Your task to perform on an android device: install app "Instagram" Image 0: 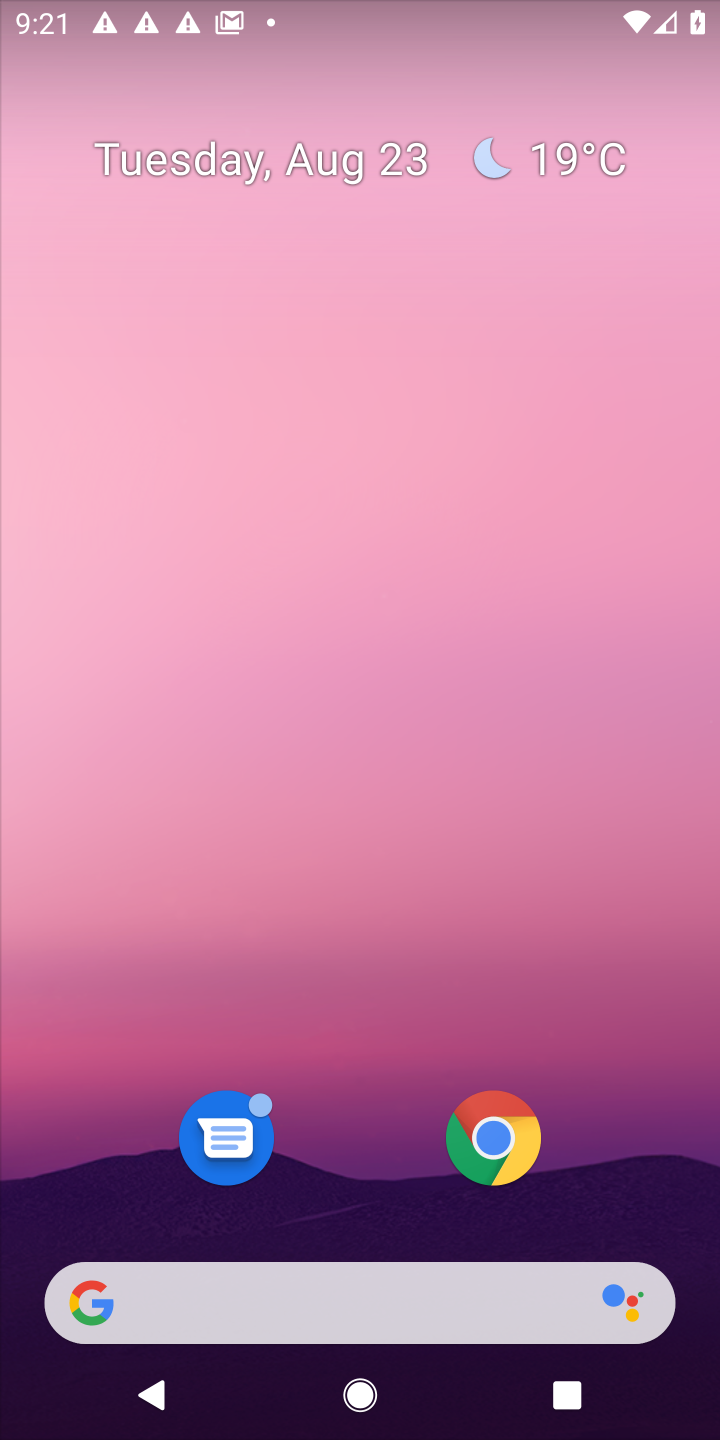
Step 0: drag from (297, 1281) to (401, 219)
Your task to perform on an android device: install app "Instagram" Image 1: 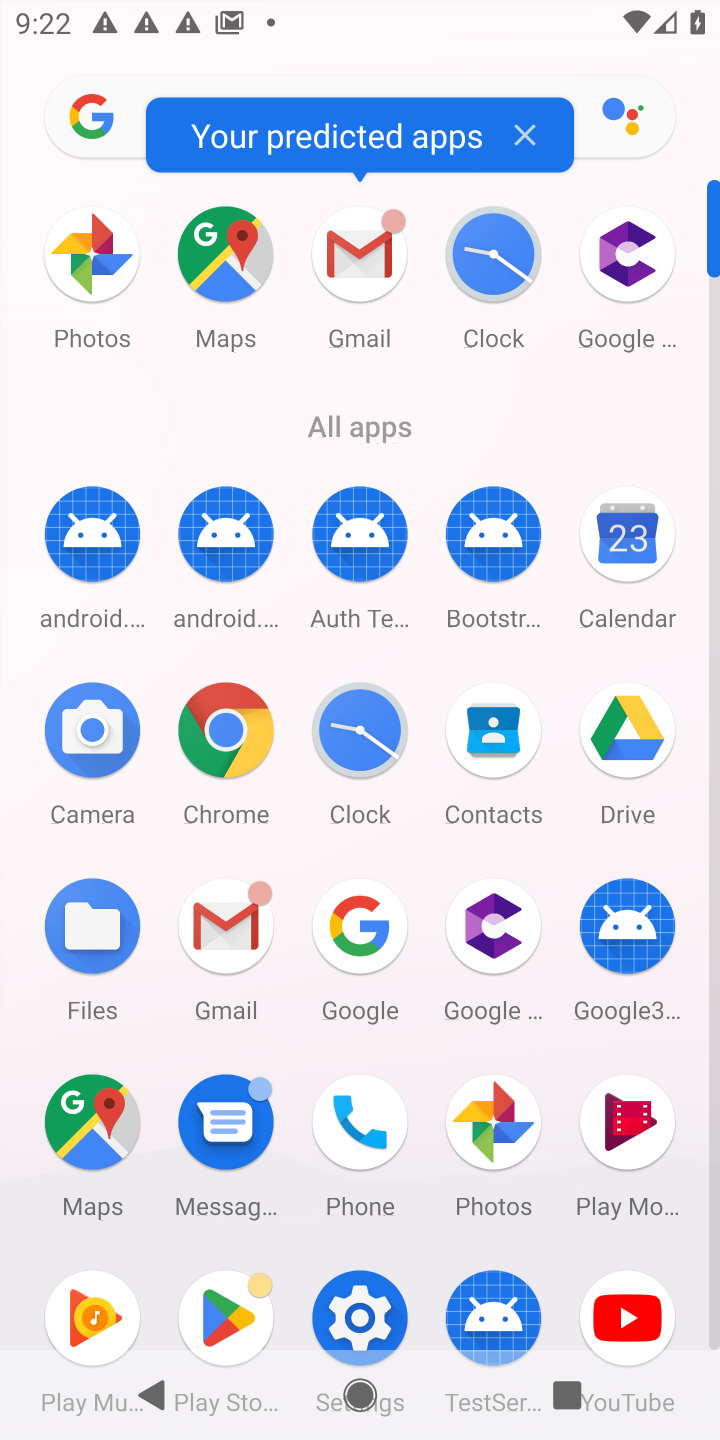
Step 1: click (228, 1308)
Your task to perform on an android device: install app "Instagram" Image 2: 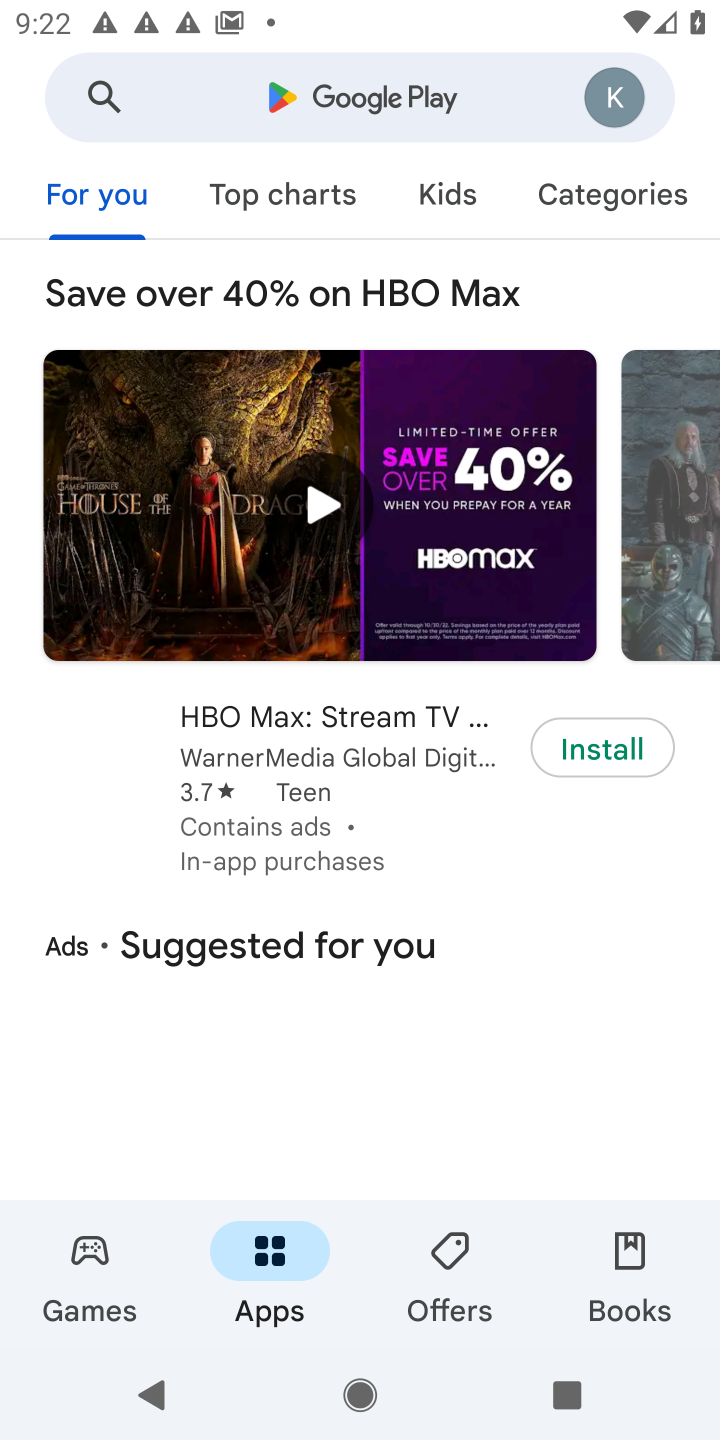
Step 2: click (370, 79)
Your task to perform on an android device: install app "Instagram" Image 3: 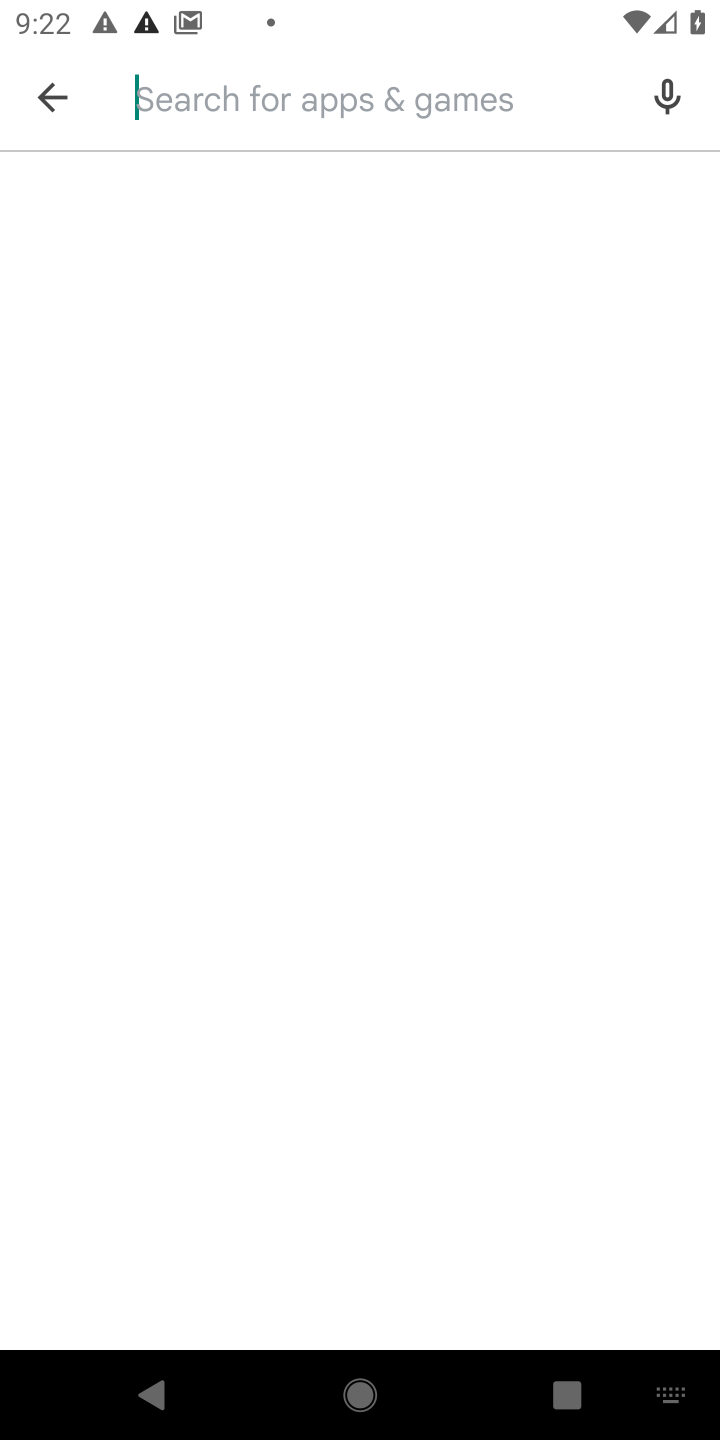
Step 3: type "Instagram"
Your task to perform on an android device: install app "Instagram" Image 4: 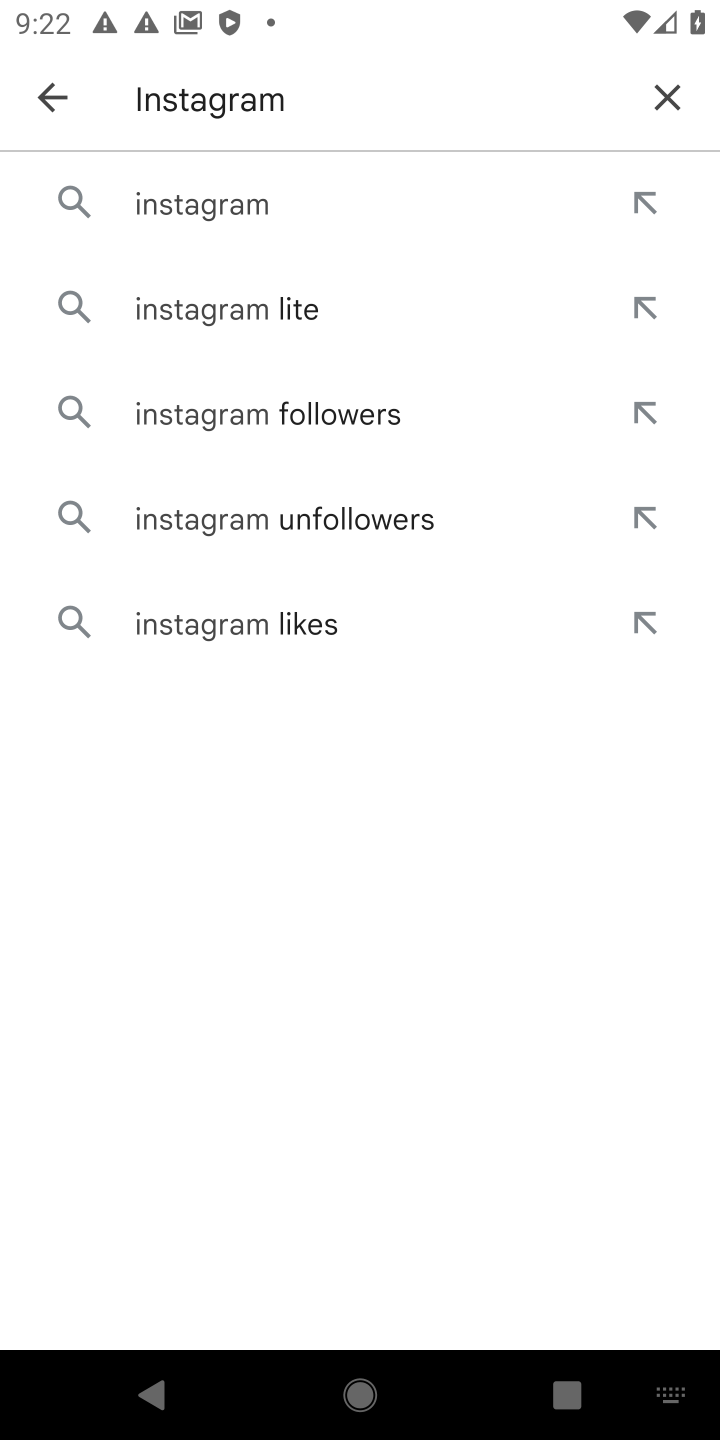
Step 4: click (237, 199)
Your task to perform on an android device: install app "Instagram" Image 5: 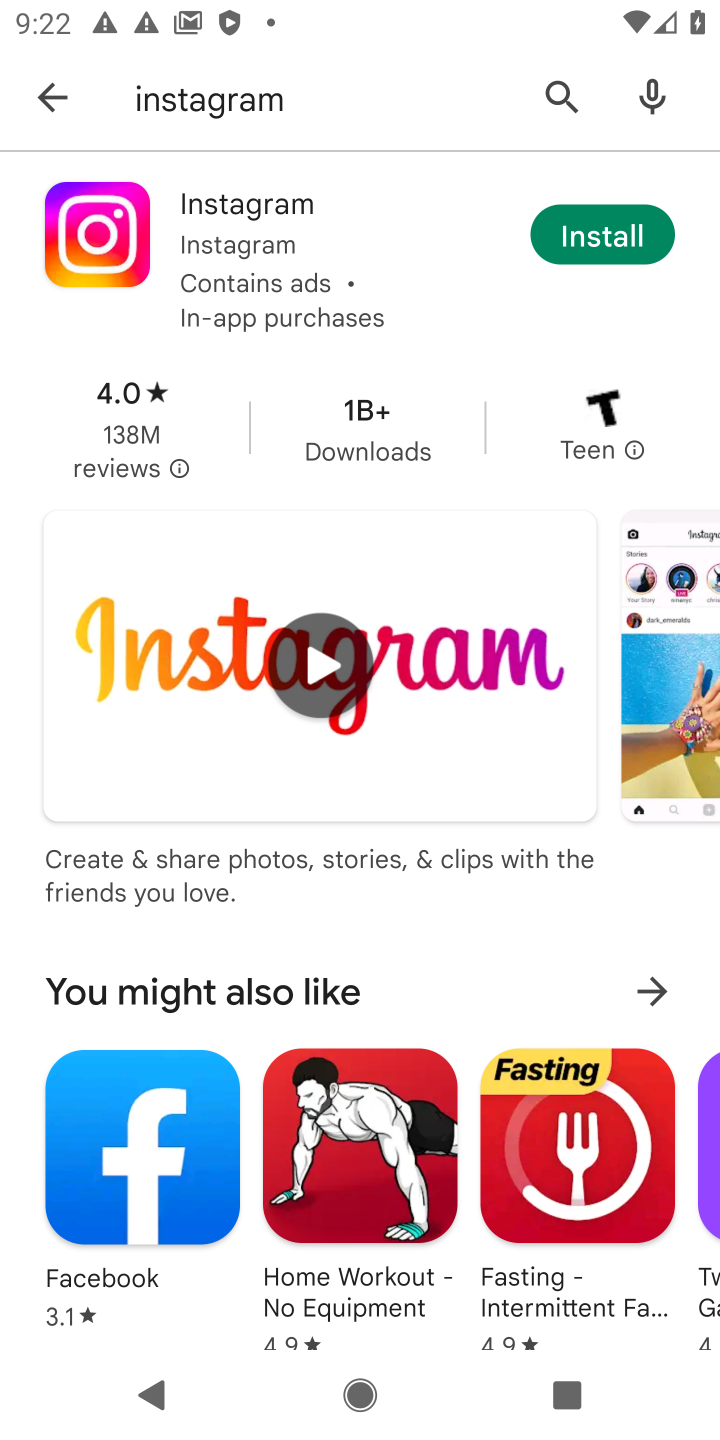
Step 5: click (613, 238)
Your task to perform on an android device: install app "Instagram" Image 6: 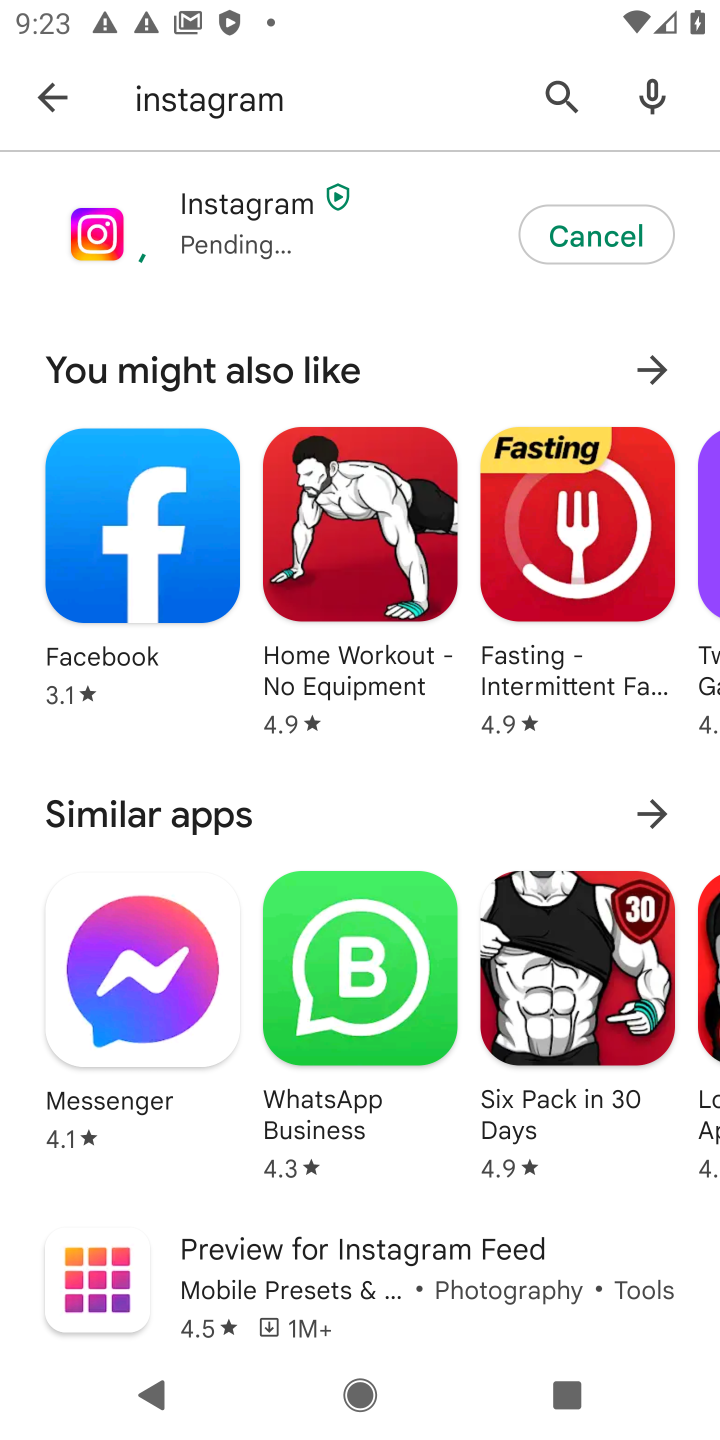
Step 6: click (188, 234)
Your task to perform on an android device: install app "Instagram" Image 7: 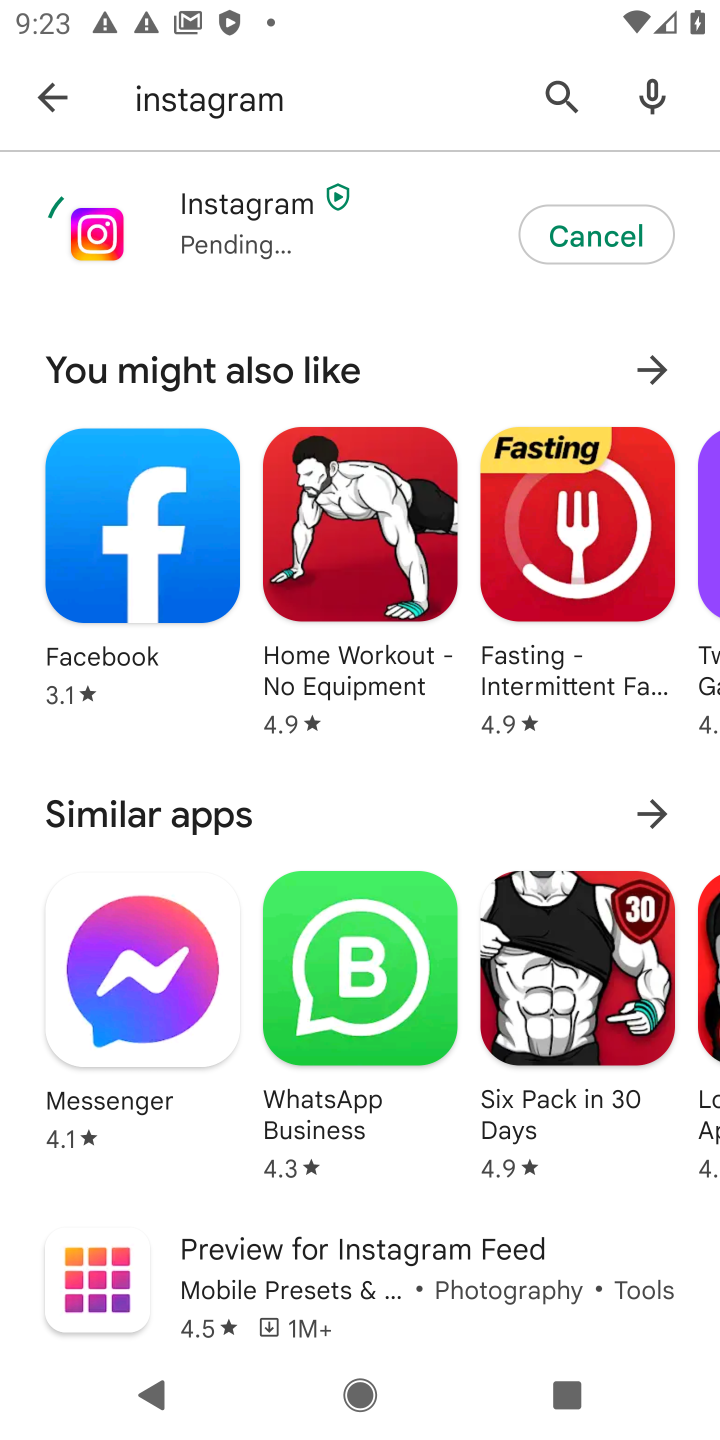
Step 7: click (549, 227)
Your task to perform on an android device: install app "Instagram" Image 8: 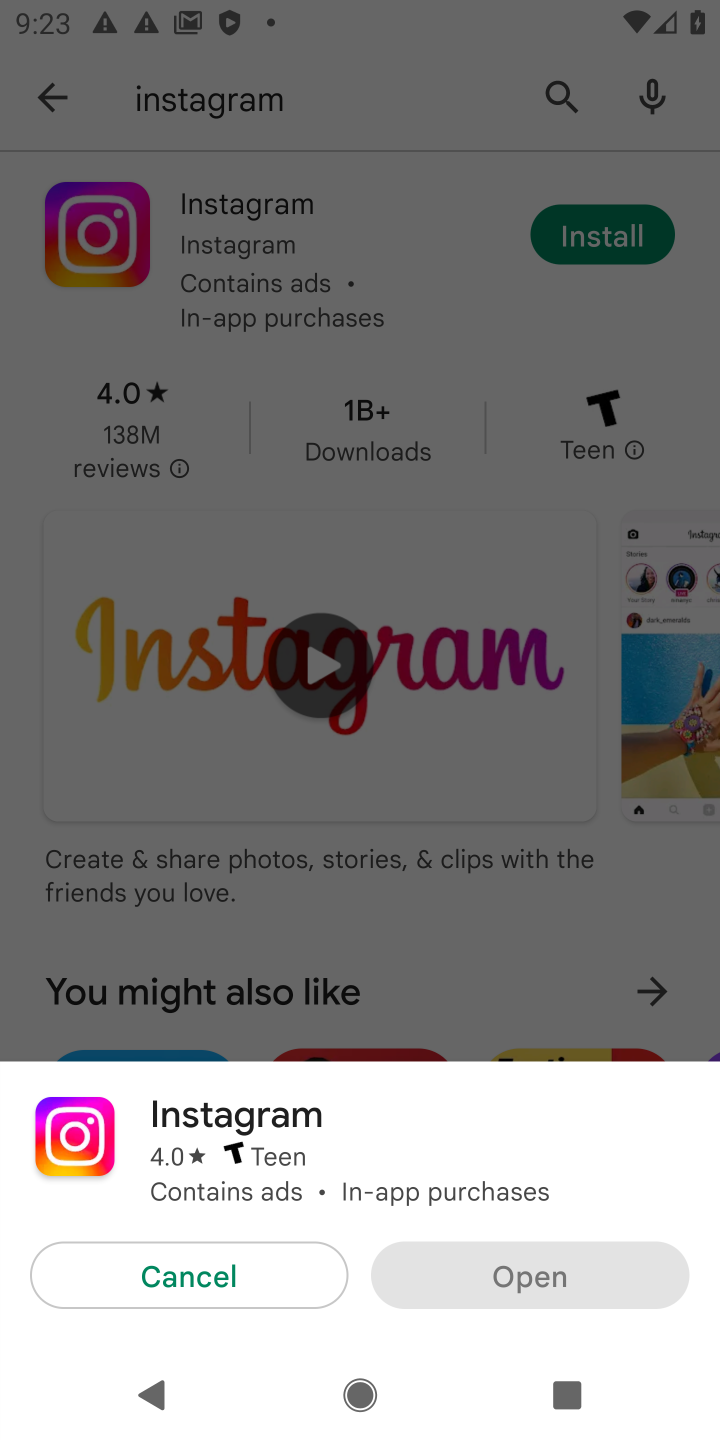
Step 8: click (570, 1266)
Your task to perform on an android device: install app "Instagram" Image 9: 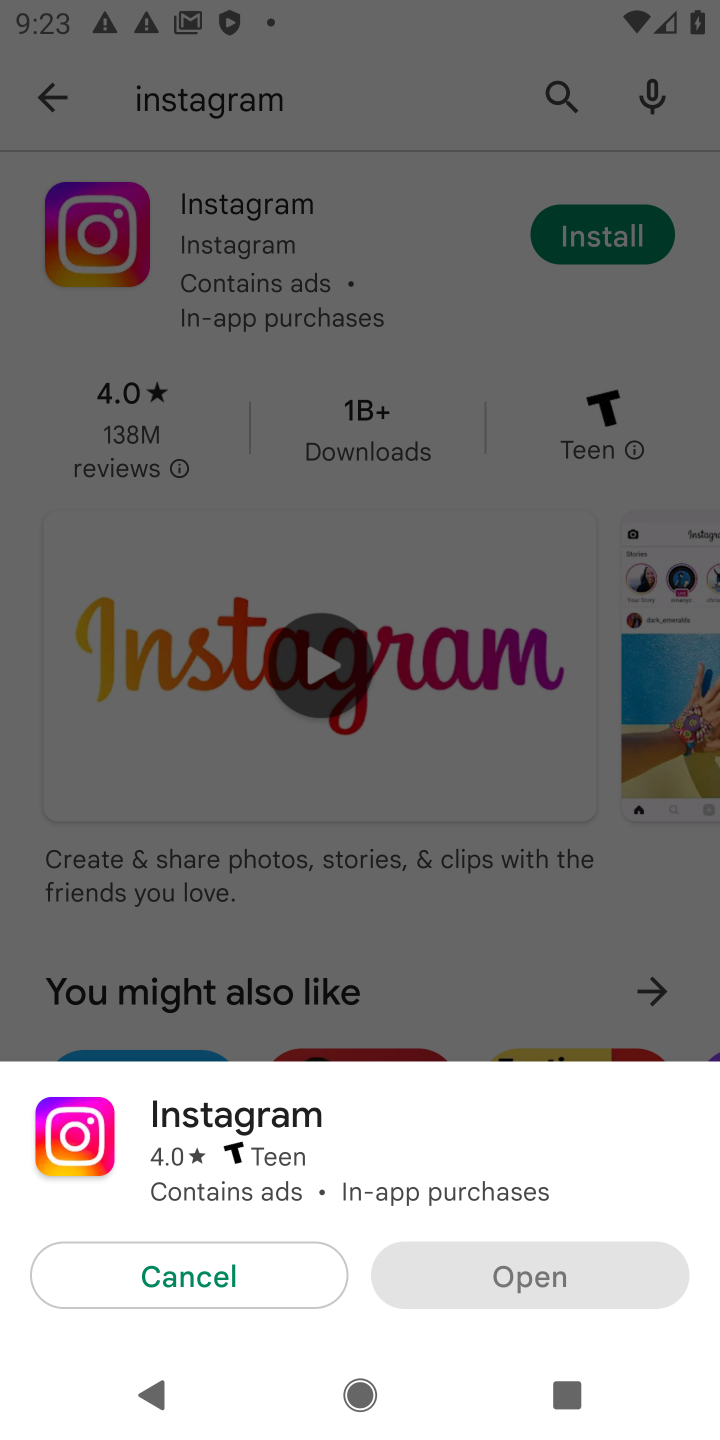
Step 9: click (600, 244)
Your task to perform on an android device: install app "Instagram" Image 10: 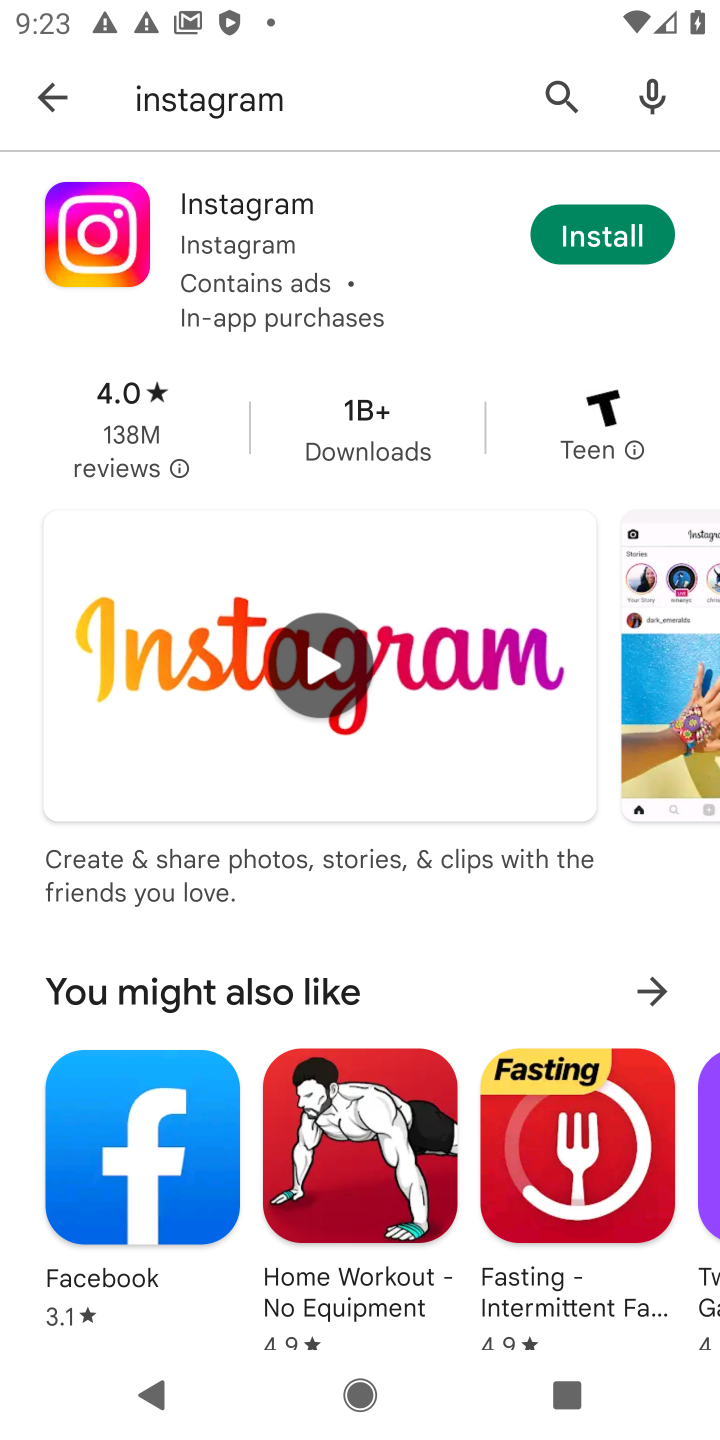
Step 10: click (600, 226)
Your task to perform on an android device: install app "Instagram" Image 11: 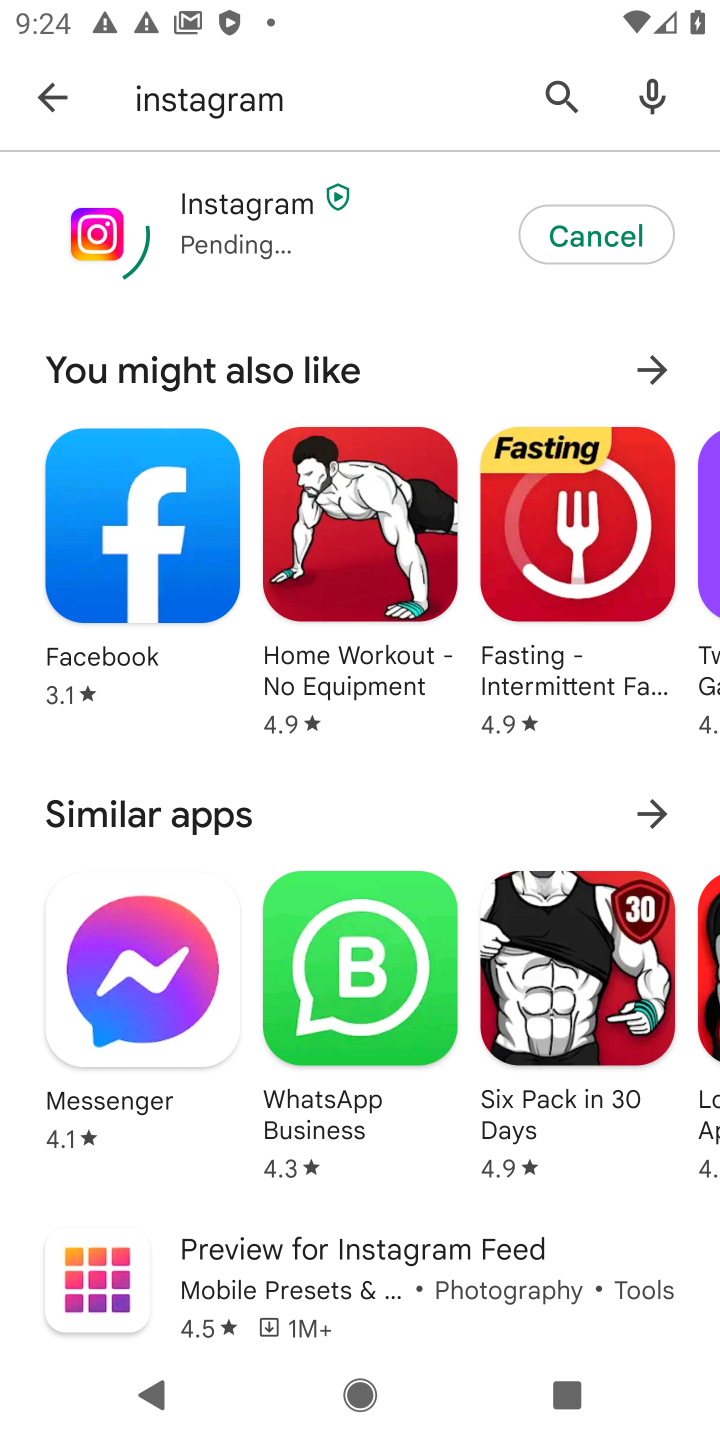
Step 11: task complete